Your task to perform on an android device: snooze an email in the gmail app Image 0: 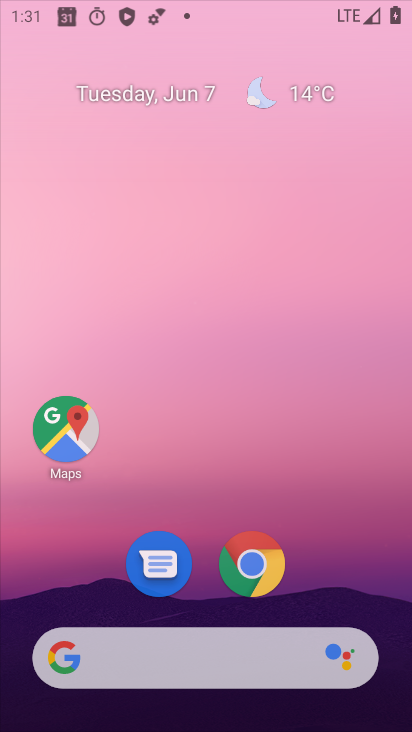
Step 0: press home button
Your task to perform on an android device: snooze an email in the gmail app Image 1: 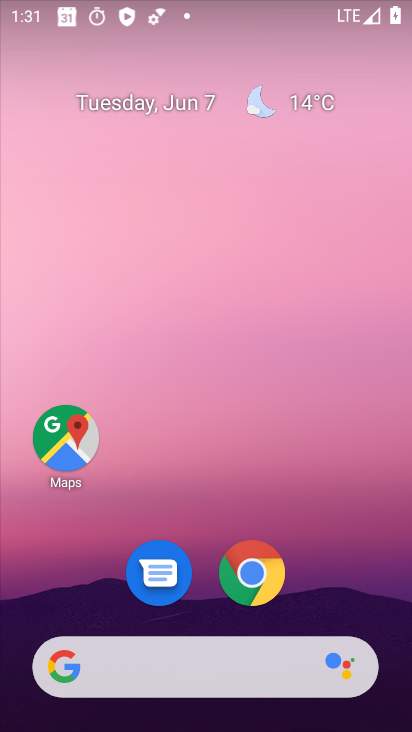
Step 1: drag from (208, 602) to (208, 0)
Your task to perform on an android device: snooze an email in the gmail app Image 2: 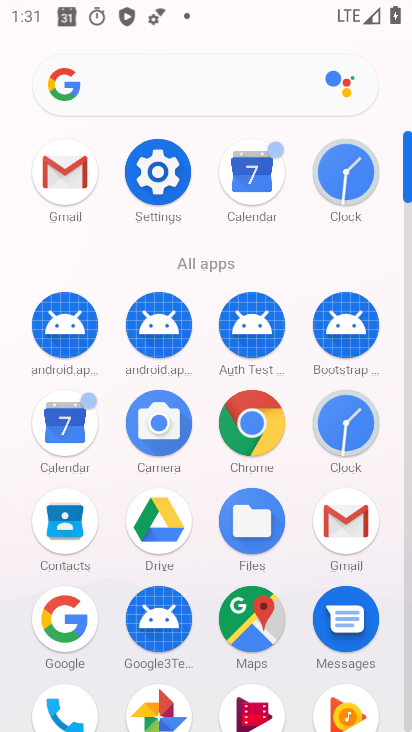
Step 2: click (70, 164)
Your task to perform on an android device: snooze an email in the gmail app Image 3: 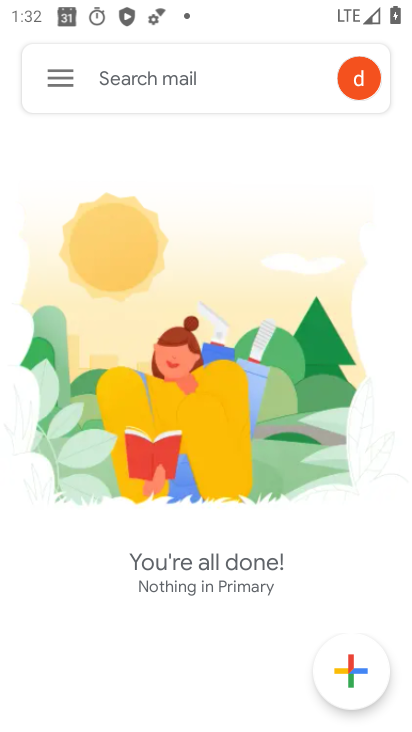
Step 3: task complete